Your task to perform on an android device: Open the calendar app, open the side menu, and click the "Day" option Image 0: 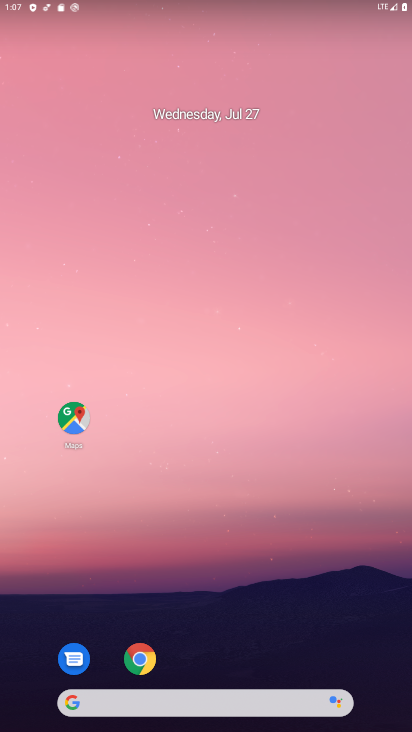
Step 0: drag from (223, 701) to (194, 408)
Your task to perform on an android device: Open the calendar app, open the side menu, and click the "Day" option Image 1: 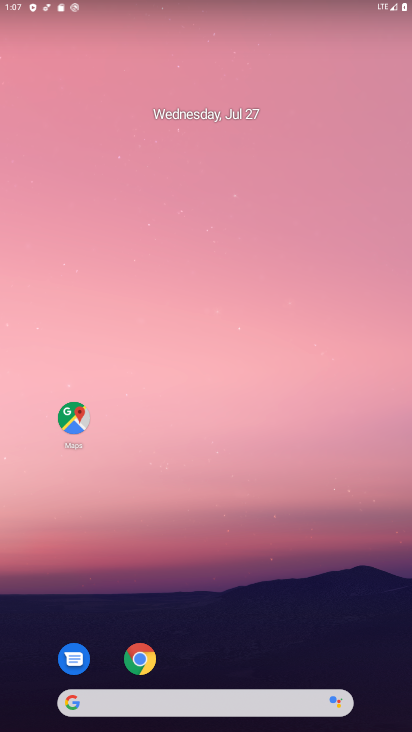
Step 1: drag from (183, 708) to (185, 103)
Your task to perform on an android device: Open the calendar app, open the side menu, and click the "Day" option Image 2: 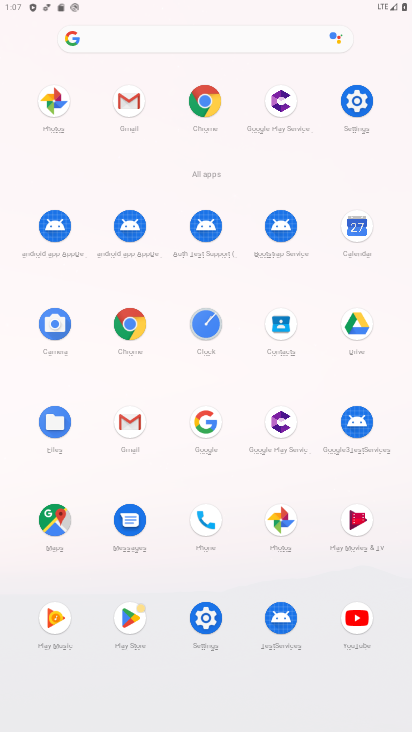
Step 2: click (353, 96)
Your task to perform on an android device: Open the calendar app, open the side menu, and click the "Day" option Image 3: 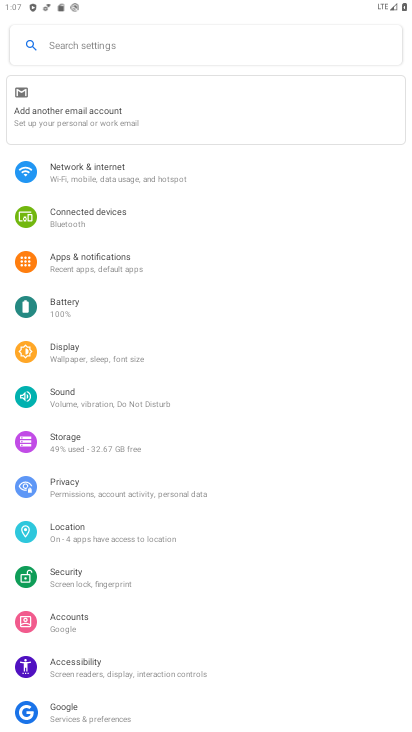
Step 3: click (68, 179)
Your task to perform on an android device: Open the calendar app, open the side menu, and click the "Day" option Image 4: 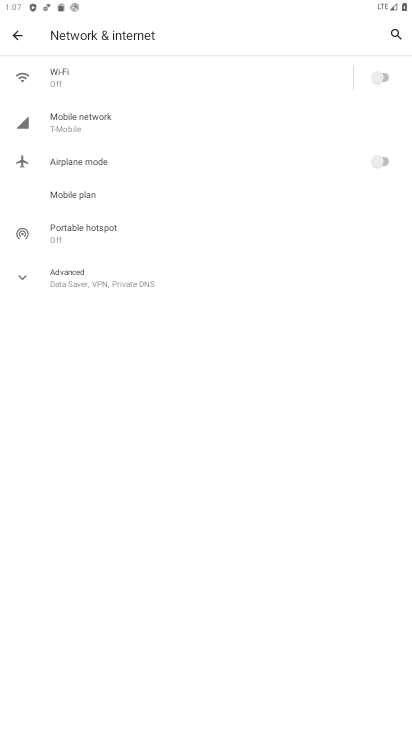
Step 4: click (71, 118)
Your task to perform on an android device: Open the calendar app, open the side menu, and click the "Day" option Image 5: 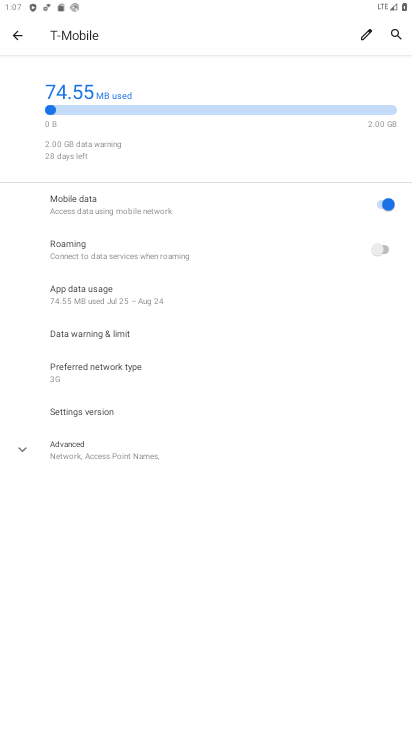
Step 5: click (95, 291)
Your task to perform on an android device: Open the calendar app, open the side menu, and click the "Day" option Image 6: 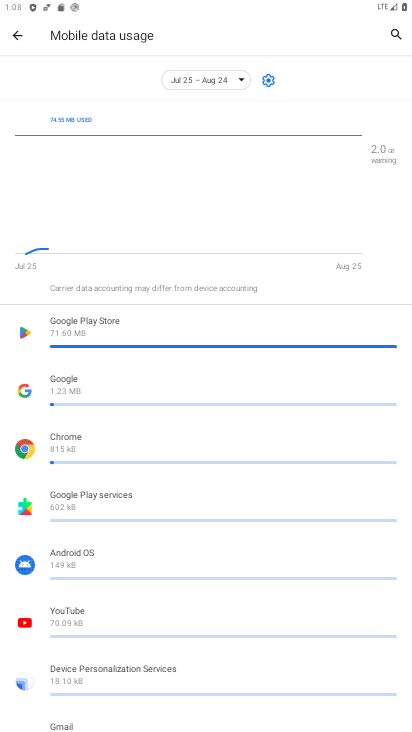
Step 6: task complete